Your task to perform on an android device: turn off priority inbox in the gmail app Image 0: 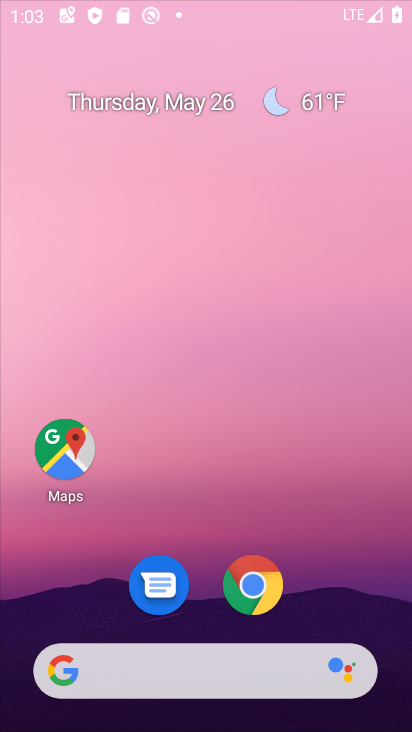
Step 0: drag from (324, 219) to (330, 119)
Your task to perform on an android device: turn off priority inbox in the gmail app Image 1: 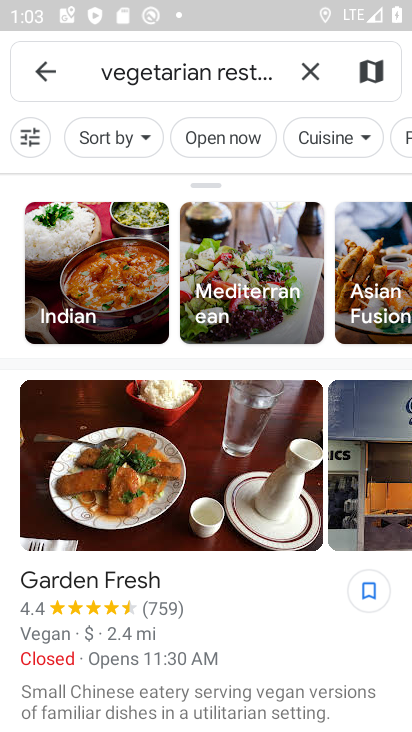
Step 1: press home button
Your task to perform on an android device: turn off priority inbox in the gmail app Image 2: 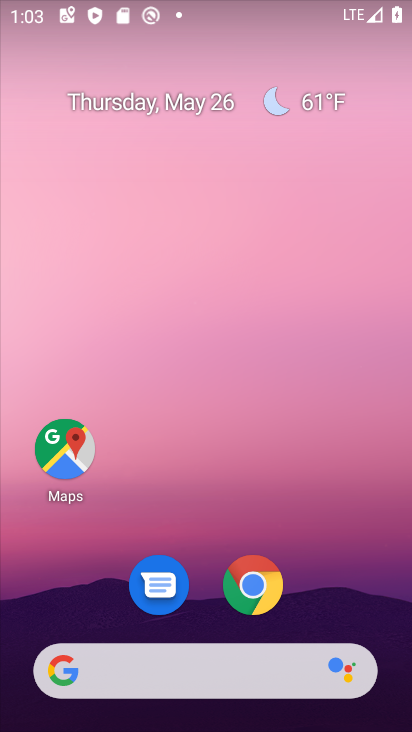
Step 2: drag from (223, 530) to (309, 67)
Your task to perform on an android device: turn off priority inbox in the gmail app Image 3: 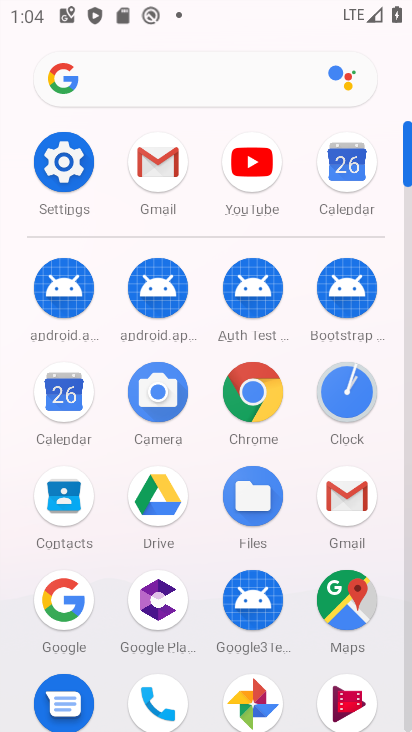
Step 3: click (167, 166)
Your task to perform on an android device: turn off priority inbox in the gmail app Image 4: 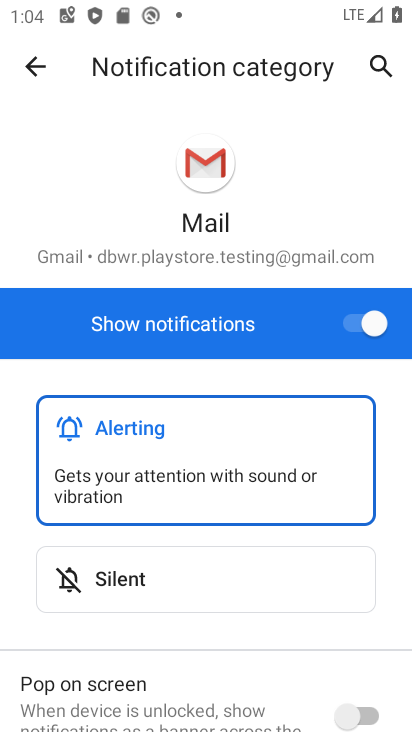
Step 4: click (42, 55)
Your task to perform on an android device: turn off priority inbox in the gmail app Image 5: 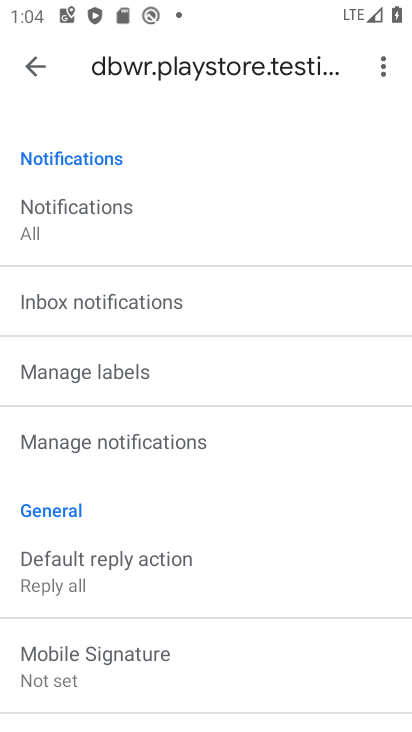
Step 5: drag from (187, 223) to (161, 643)
Your task to perform on an android device: turn off priority inbox in the gmail app Image 6: 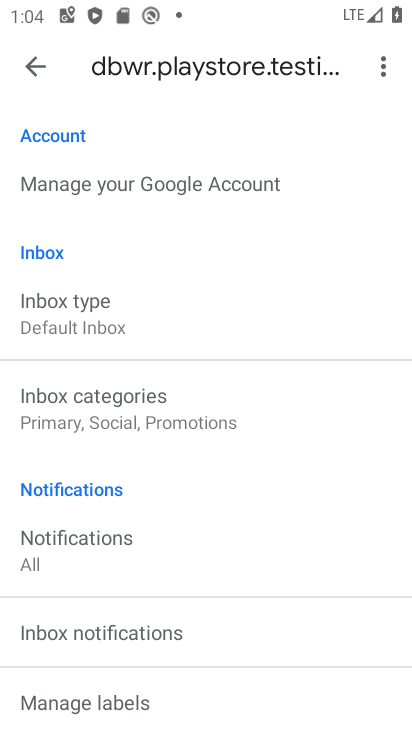
Step 6: click (54, 314)
Your task to perform on an android device: turn off priority inbox in the gmail app Image 7: 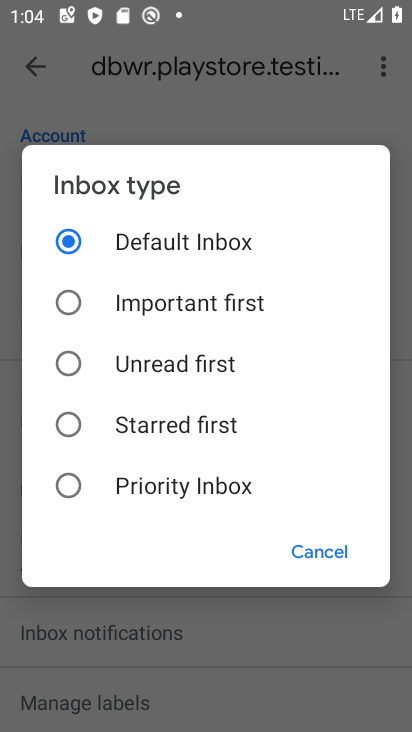
Step 7: click (73, 290)
Your task to perform on an android device: turn off priority inbox in the gmail app Image 8: 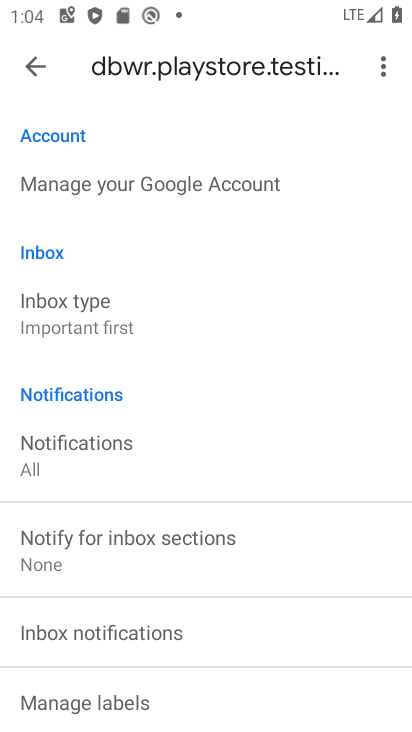
Step 8: task complete